Your task to perform on an android device: turn on sleep mode Image 0: 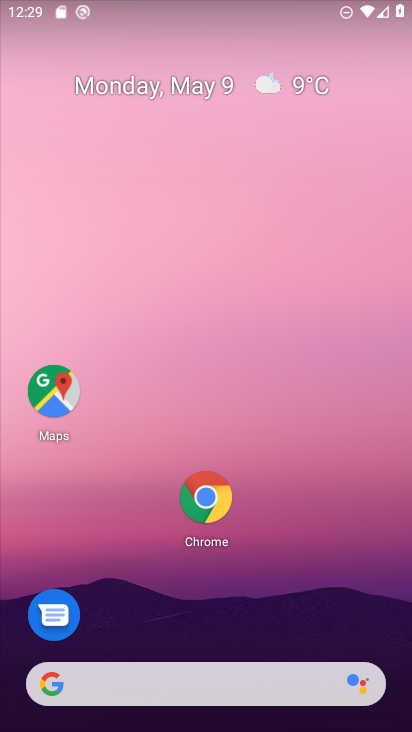
Step 0: drag from (289, 580) to (259, 60)
Your task to perform on an android device: turn on sleep mode Image 1: 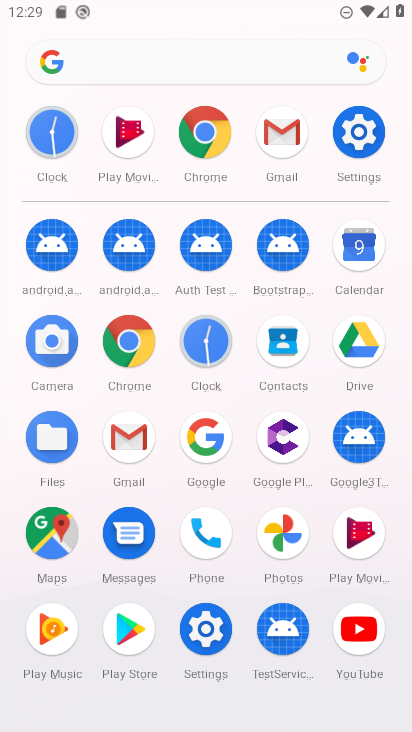
Step 1: click (353, 143)
Your task to perform on an android device: turn on sleep mode Image 2: 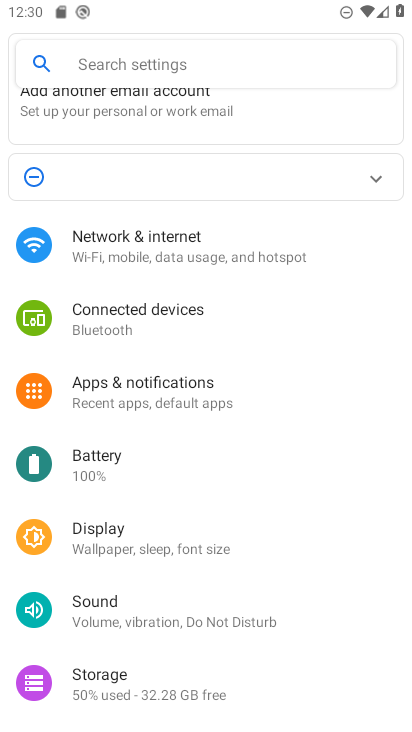
Step 2: click (166, 519)
Your task to perform on an android device: turn on sleep mode Image 3: 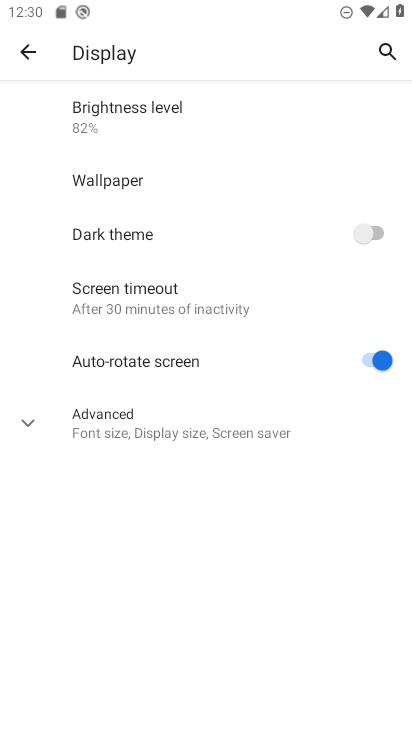
Step 3: click (118, 298)
Your task to perform on an android device: turn on sleep mode Image 4: 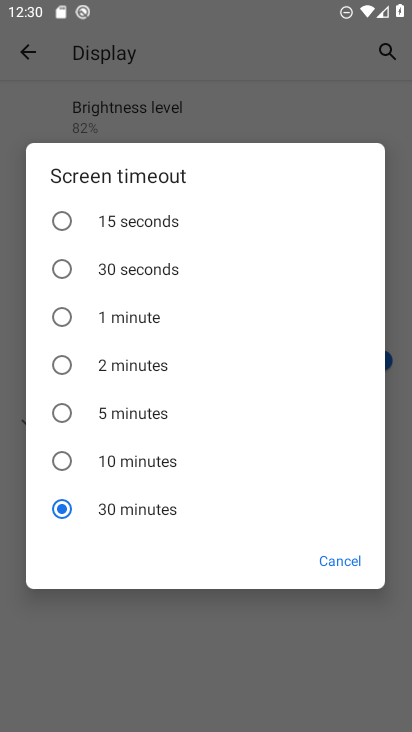
Step 4: task complete